Your task to perform on an android device: turn off sleep mode Image 0: 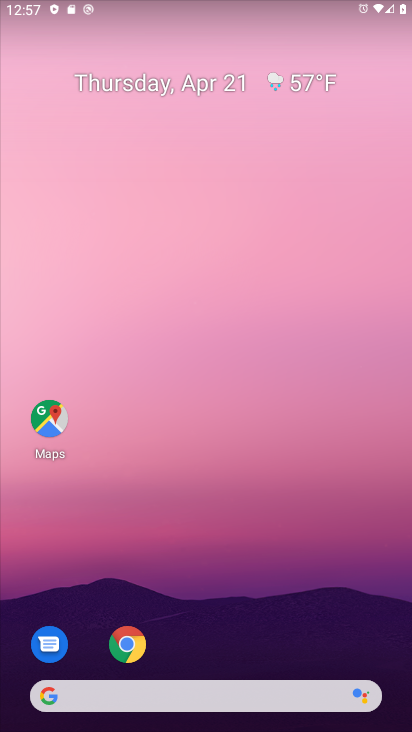
Step 0: drag from (219, 671) to (139, 42)
Your task to perform on an android device: turn off sleep mode Image 1: 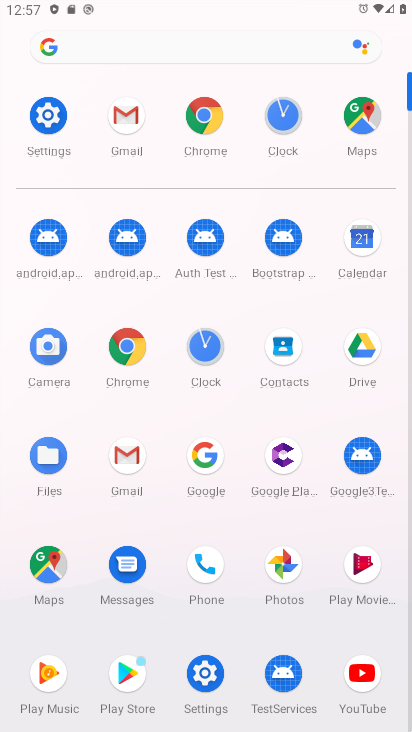
Step 1: click (37, 118)
Your task to perform on an android device: turn off sleep mode Image 2: 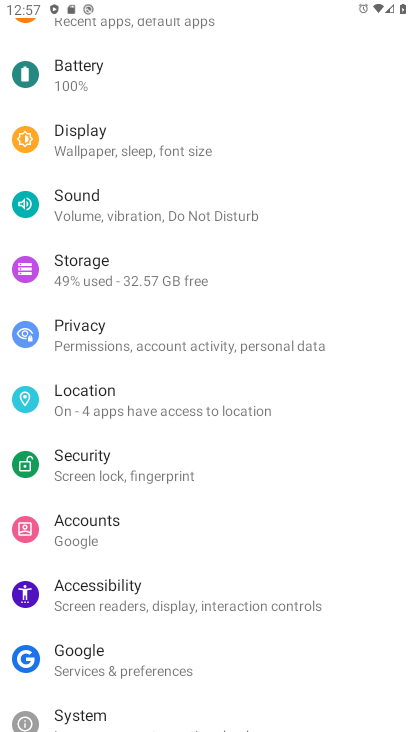
Step 2: click (75, 143)
Your task to perform on an android device: turn off sleep mode Image 3: 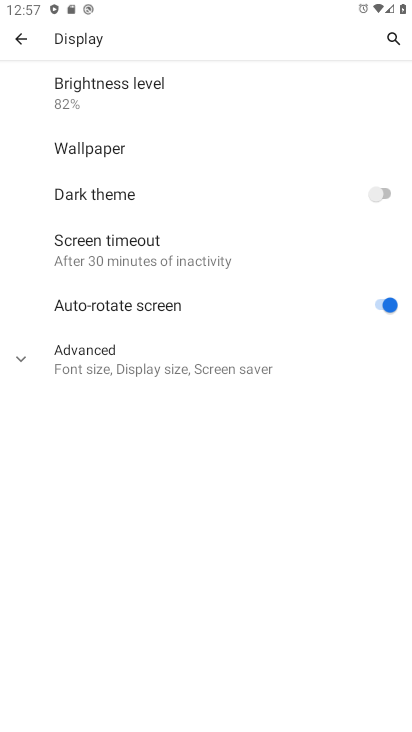
Step 3: click (117, 366)
Your task to perform on an android device: turn off sleep mode Image 4: 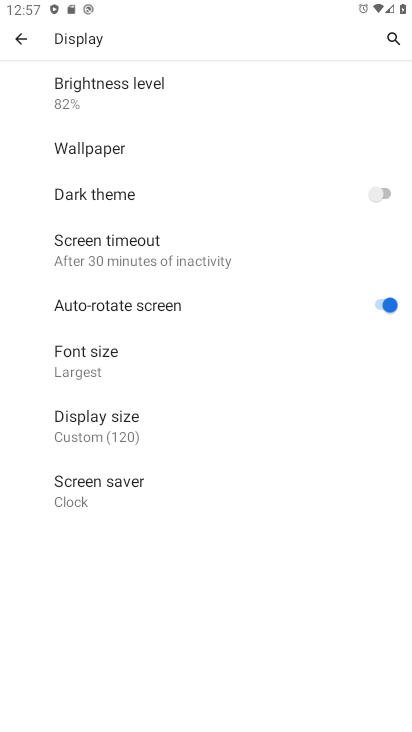
Step 4: task complete